Your task to perform on an android device: turn on javascript in the chrome app Image 0: 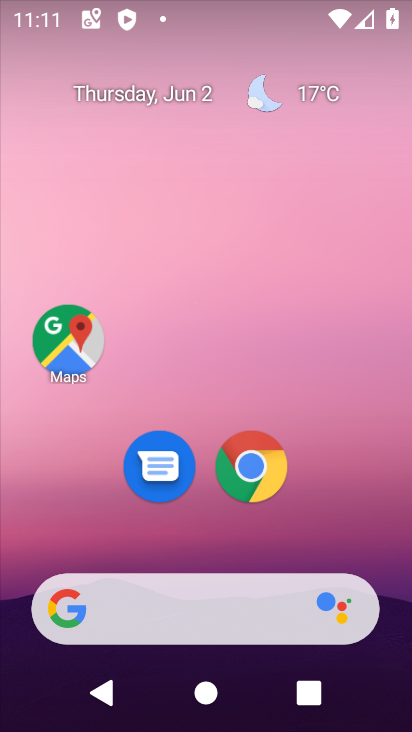
Step 0: click (242, 471)
Your task to perform on an android device: turn on javascript in the chrome app Image 1: 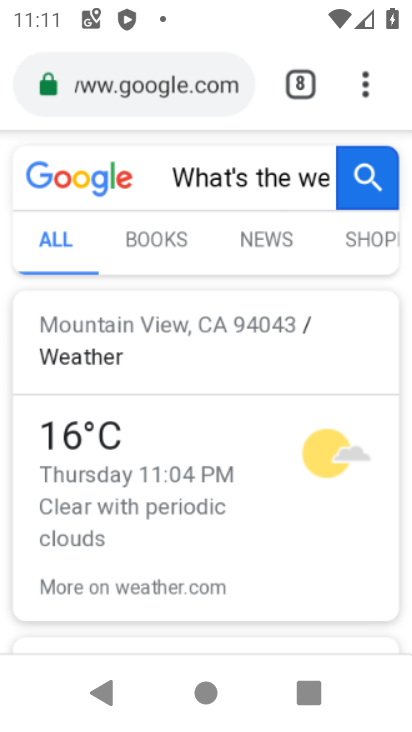
Step 1: click (362, 70)
Your task to perform on an android device: turn on javascript in the chrome app Image 2: 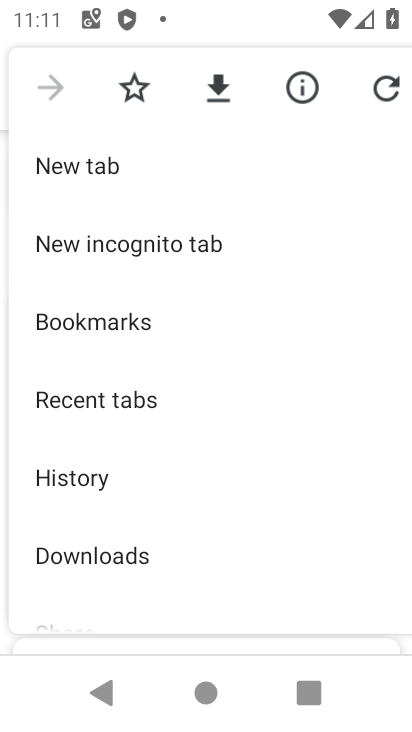
Step 2: drag from (119, 536) to (159, 275)
Your task to perform on an android device: turn on javascript in the chrome app Image 3: 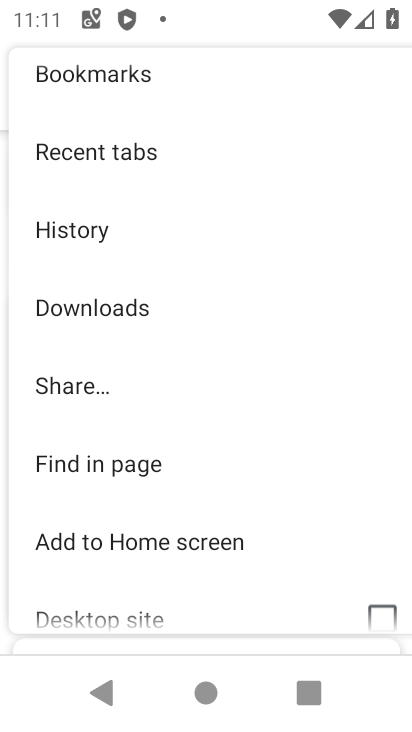
Step 3: drag from (99, 383) to (144, 147)
Your task to perform on an android device: turn on javascript in the chrome app Image 4: 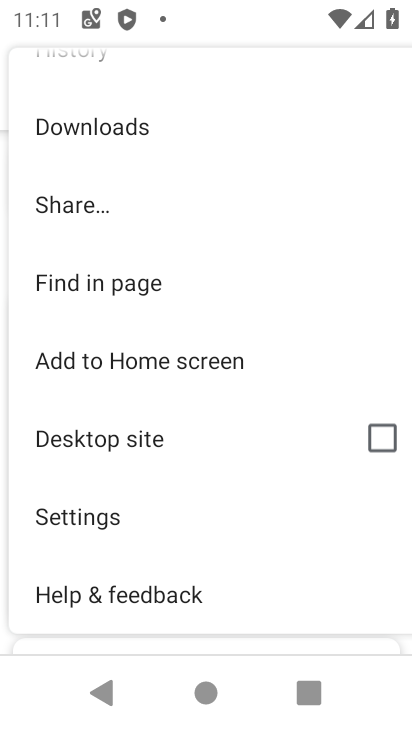
Step 4: click (110, 511)
Your task to perform on an android device: turn on javascript in the chrome app Image 5: 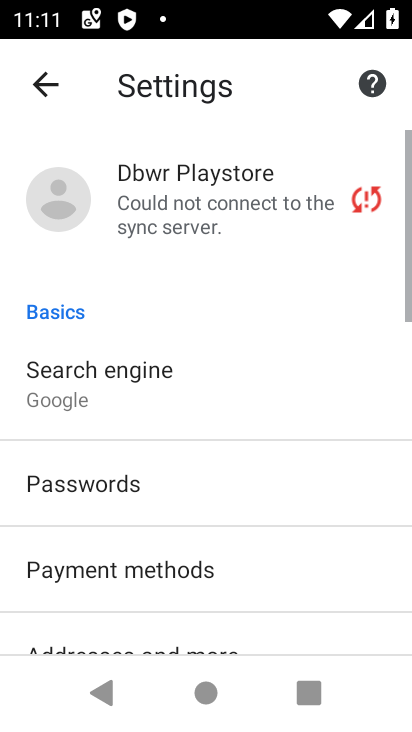
Step 5: drag from (203, 367) to (223, 250)
Your task to perform on an android device: turn on javascript in the chrome app Image 6: 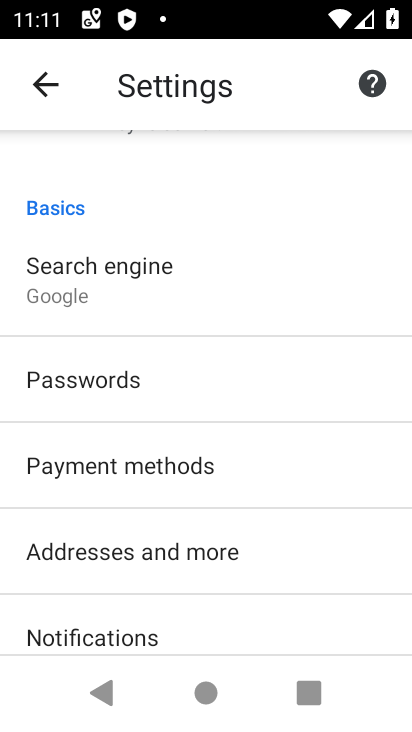
Step 6: drag from (170, 587) to (228, 241)
Your task to perform on an android device: turn on javascript in the chrome app Image 7: 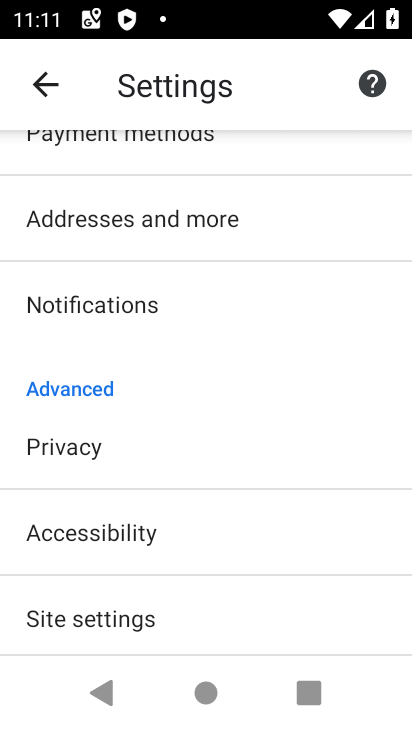
Step 7: drag from (161, 598) to (189, 332)
Your task to perform on an android device: turn on javascript in the chrome app Image 8: 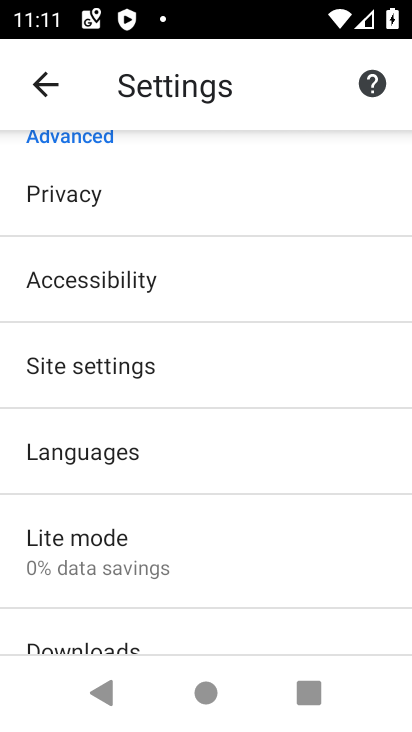
Step 8: click (116, 350)
Your task to perform on an android device: turn on javascript in the chrome app Image 9: 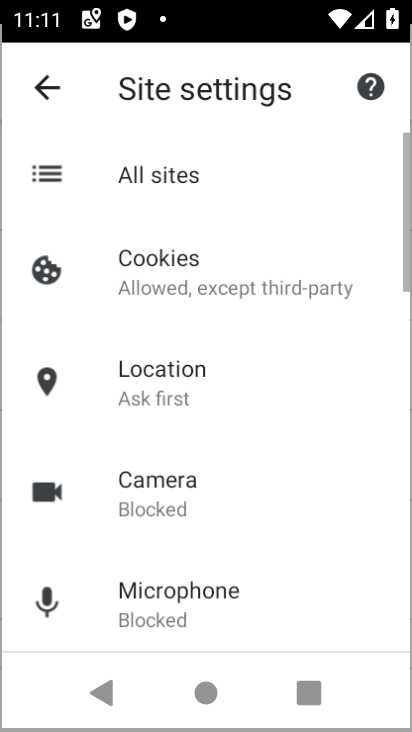
Step 9: click (118, 355)
Your task to perform on an android device: turn on javascript in the chrome app Image 10: 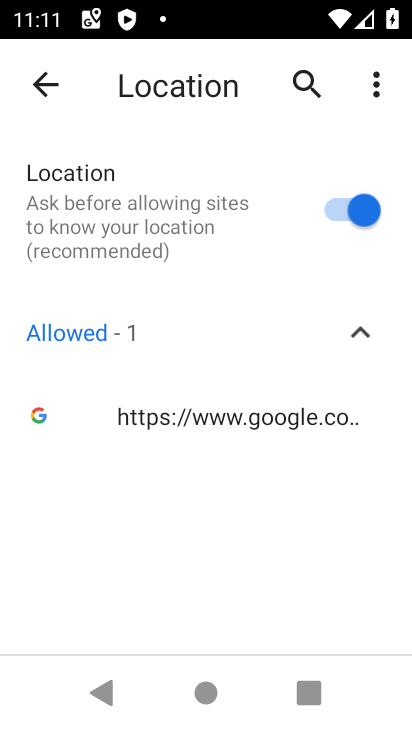
Step 10: click (38, 96)
Your task to perform on an android device: turn on javascript in the chrome app Image 11: 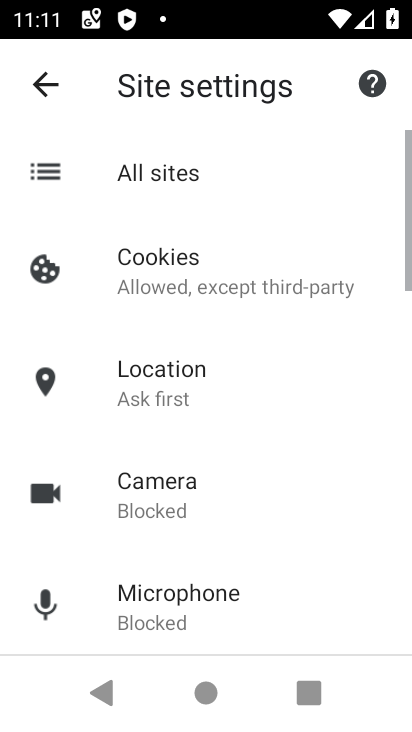
Step 11: drag from (140, 543) to (149, 257)
Your task to perform on an android device: turn on javascript in the chrome app Image 12: 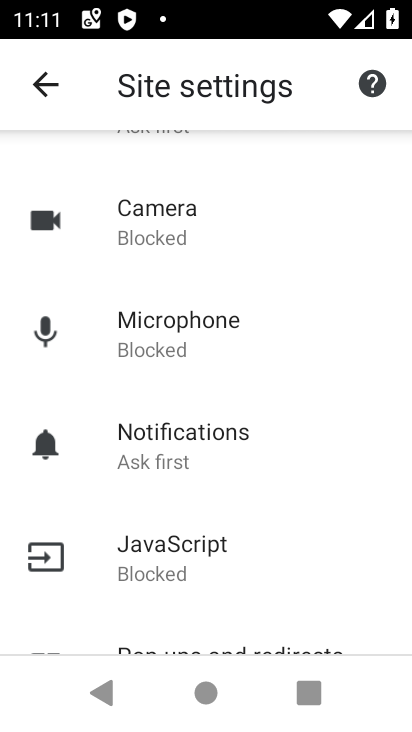
Step 12: click (170, 538)
Your task to perform on an android device: turn on javascript in the chrome app Image 13: 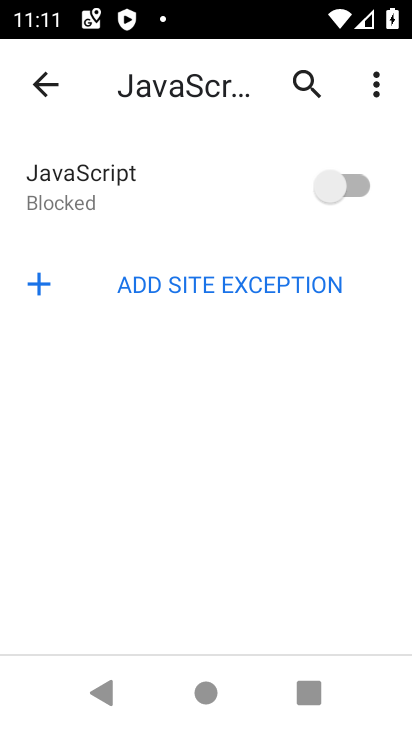
Step 13: click (345, 171)
Your task to perform on an android device: turn on javascript in the chrome app Image 14: 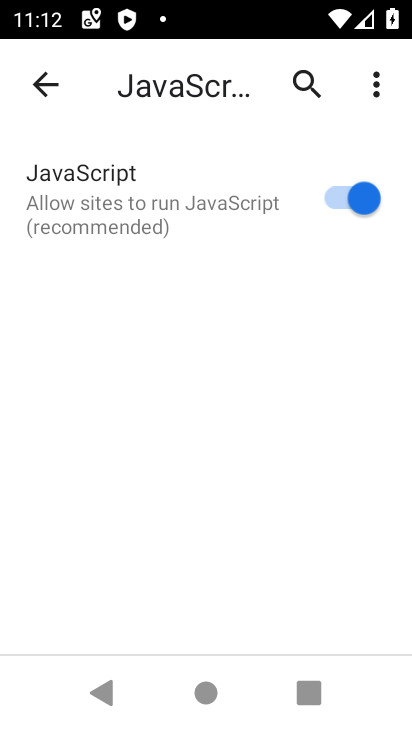
Step 14: task complete